Your task to perform on an android device: turn on data saver in the chrome app Image 0: 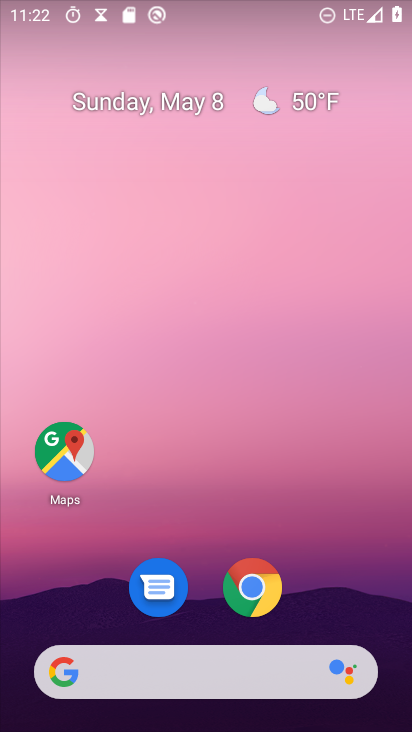
Step 0: click (250, 592)
Your task to perform on an android device: turn on data saver in the chrome app Image 1: 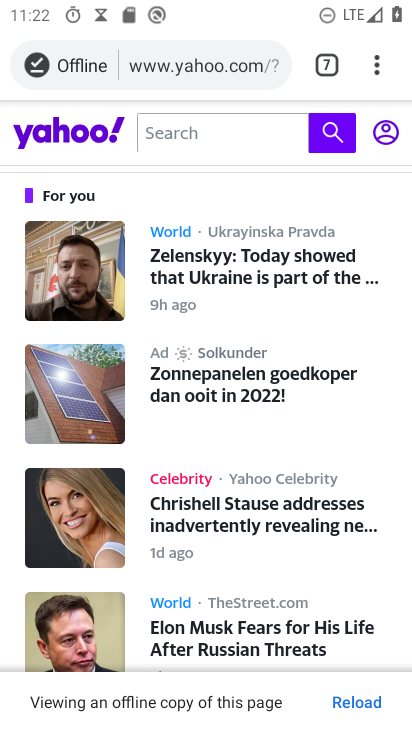
Step 1: drag from (378, 63) to (149, 633)
Your task to perform on an android device: turn on data saver in the chrome app Image 2: 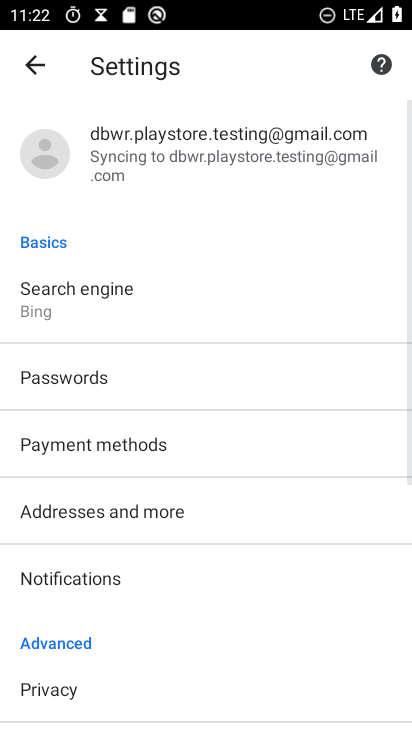
Step 2: drag from (144, 630) to (151, 298)
Your task to perform on an android device: turn on data saver in the chrome app Image 3: 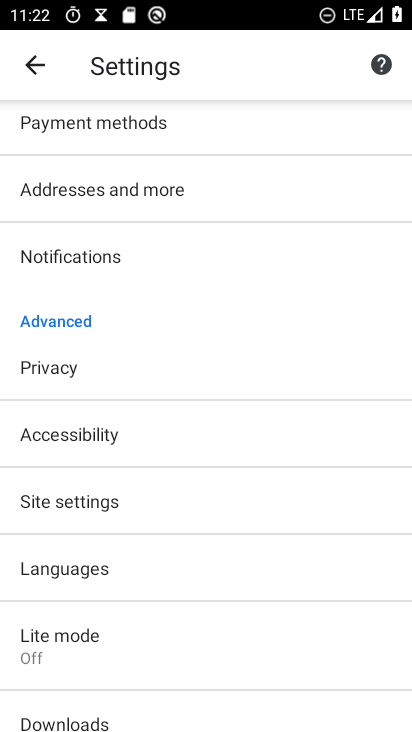
Step 3: click (72, 651)
Your task to perform on an android device: turn on data saver in the chrome app Image 4: 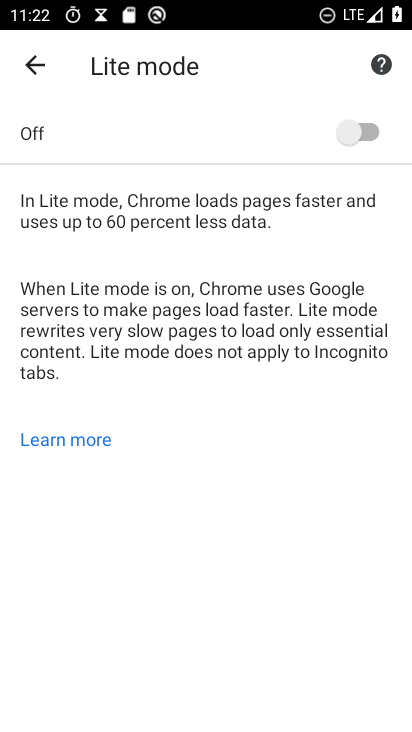
Step 4: click (369, 133)
Your task to perform on an android device: turn on data saver in the chrome app Image 5: 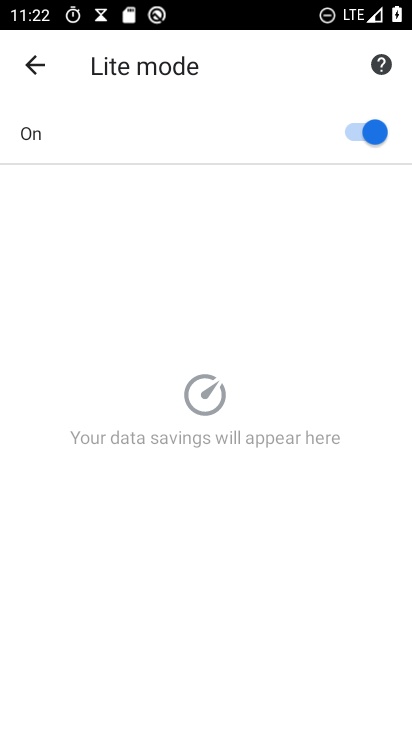
Step 5: task complete